Your task to perform on an android device: star an email in the gmail app Image 0: 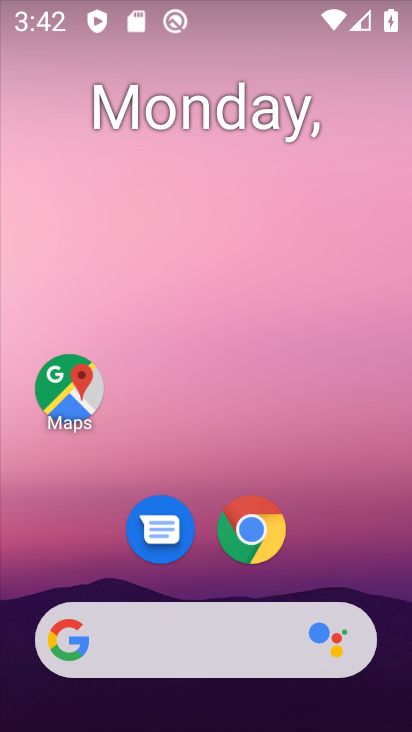
Step 0: drag from (217, 579) to (309, 28)
Your task to perform on an android device: star an email in the gmail app Image 1: 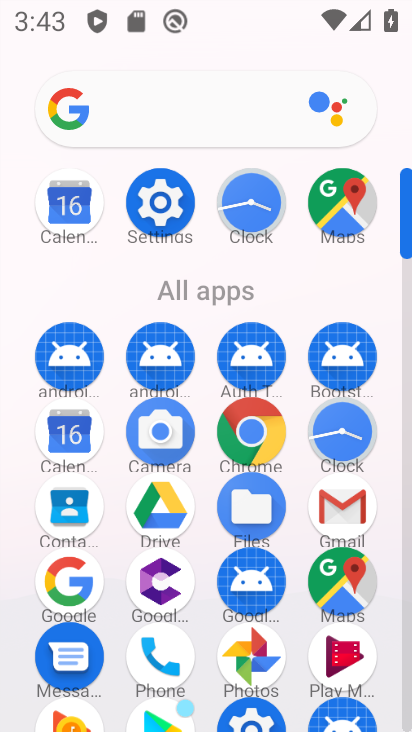
Step 1: click (360, 501)
Your task to perform on an android device: star an email in the gmail app Image 2: 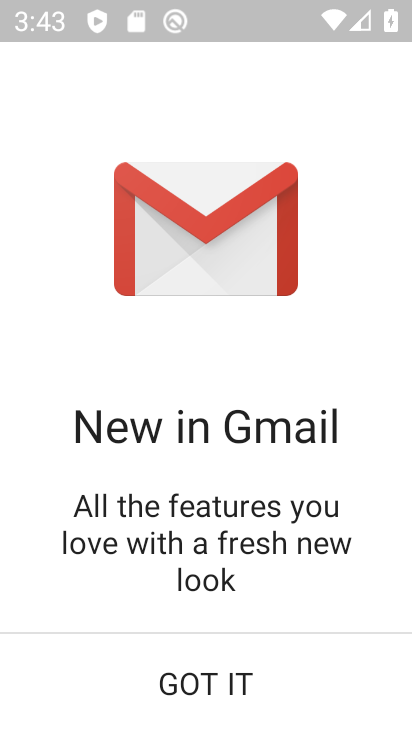
Step 2: click (254, 698)
Your task to perform on an android device: star an email in the gmail app Image 3: 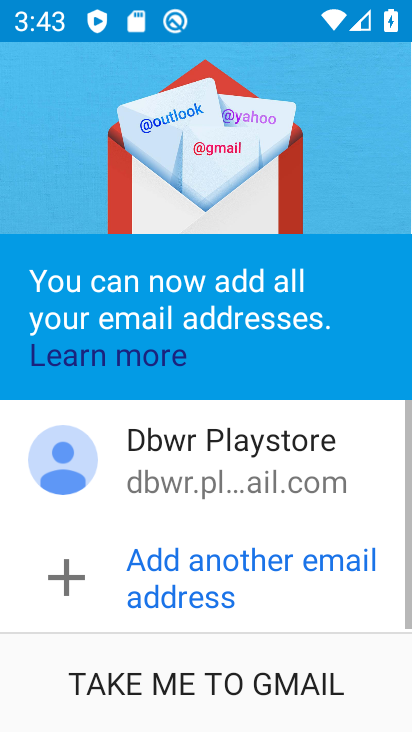
Step 3: click (262, 698)
Your task to perform on an android device: star an email in the gmail app Image 4: 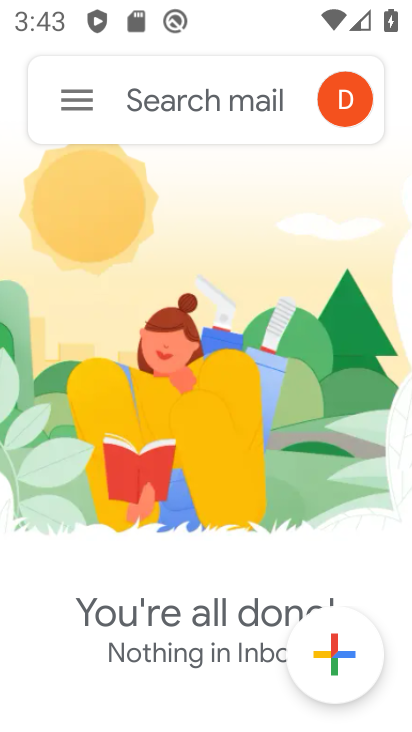
Step 4: click (73, 99)
Your task to perform on an android device: star an email in the gmail app Image 5: 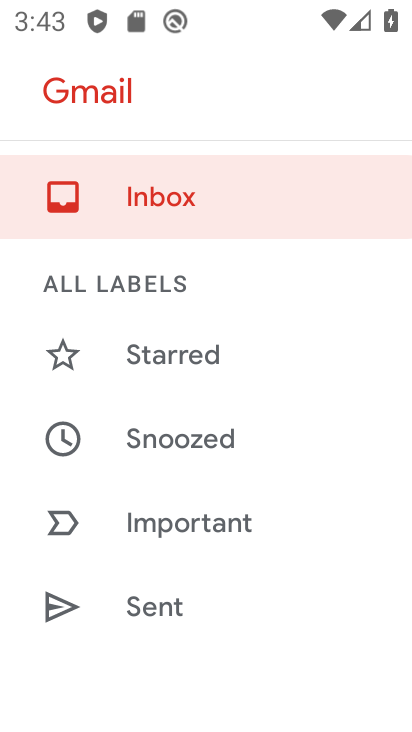
Step 5: drag from (143, 556) to (243, 198)
Your task to perform on an android device: star an email in the gmail app Image 6: 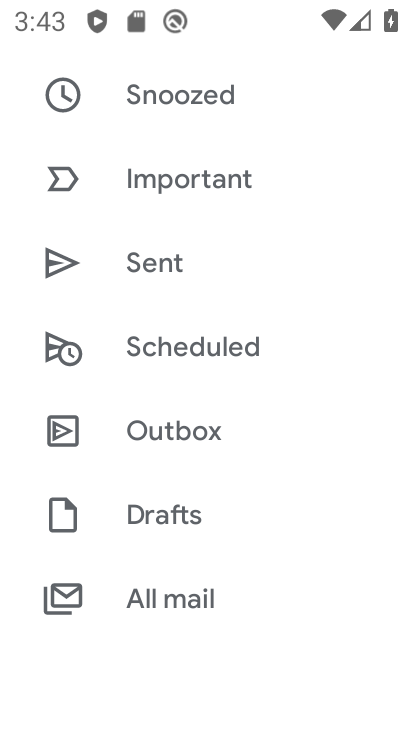
Step 6: click (157, 600)
Your task to perform on an android device: star an email in the gmail app Image 7: 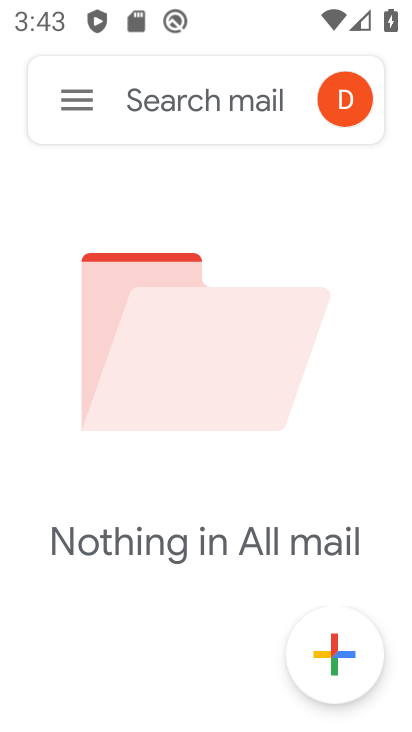
Step 7: task complete